Your task to perform on an android device: Open display settings Image 0: 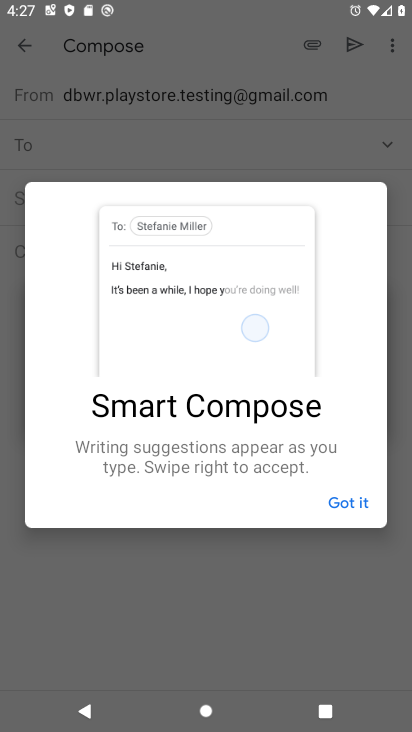
Step 0: press home button
Your task to perform on an android device: Open display settings Image 1: 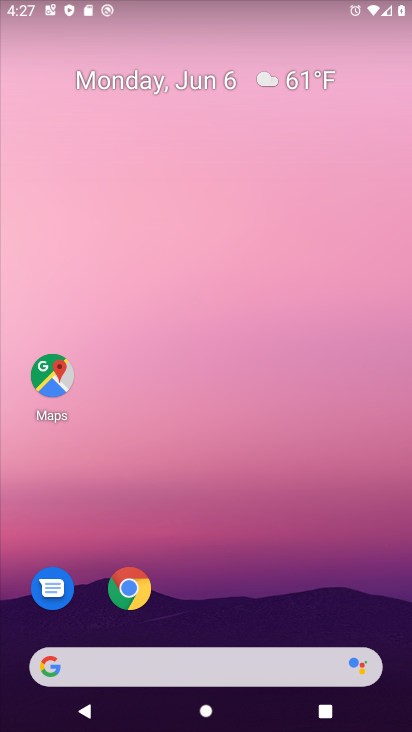
Step 1: drag from (253, 576) to (210, 271)
Your task to perform on an android device: Open display settings Image 2: 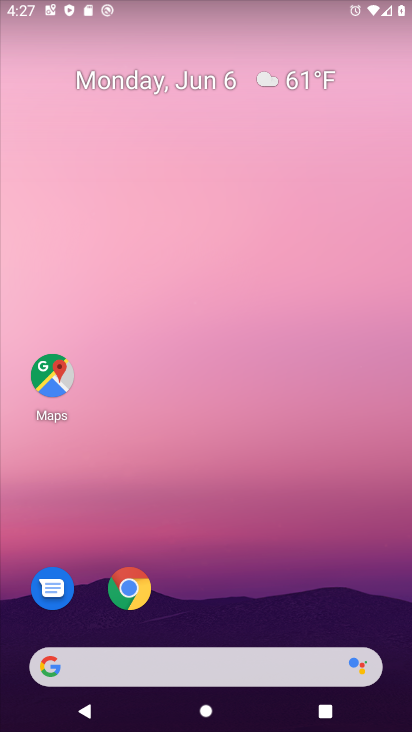
Step 2: drag from (245, 621) to (233, 39)
Your task to perform on an android device: Open display settings Image 3: 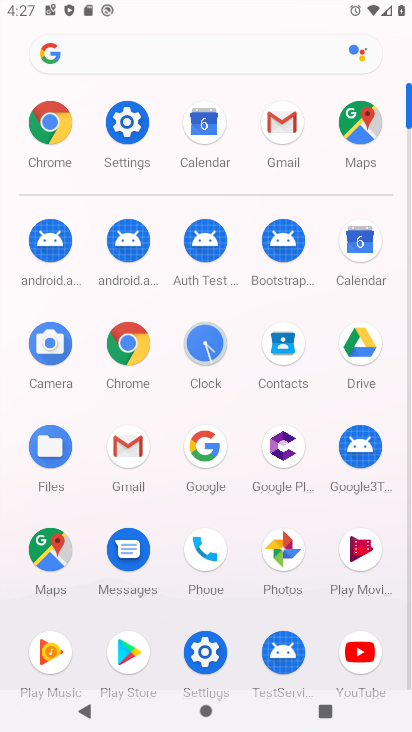
Step 3: click (127, 133)
Your task to perform on an android device: Open display settings Image 4: 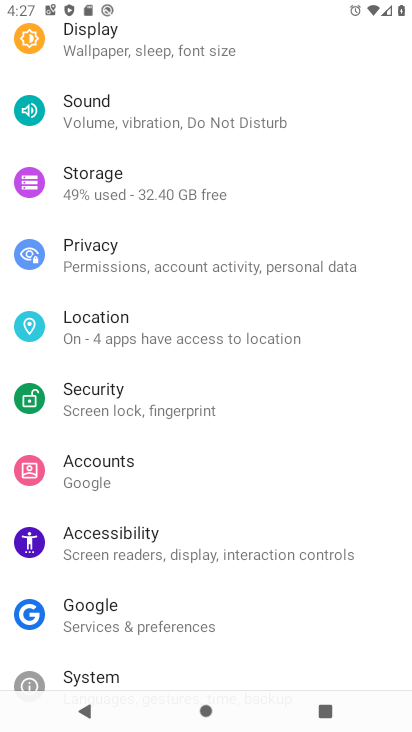
Step 4: click (134, 56)
Your task to perform on an android device: Open display settings Image 5: 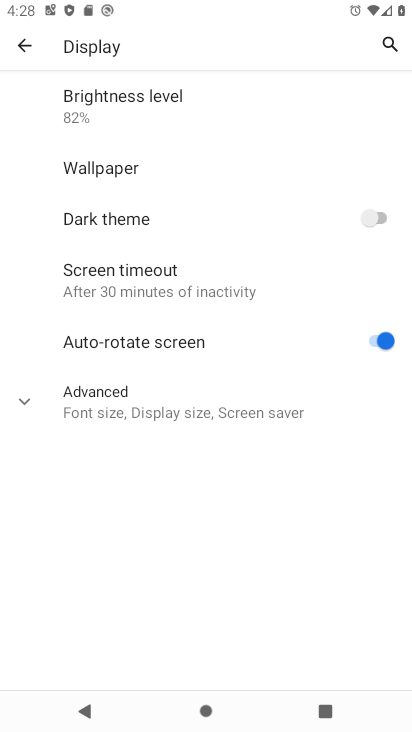
Step 5: task complete